Your task to perform on an android device: check google app version Image 0: 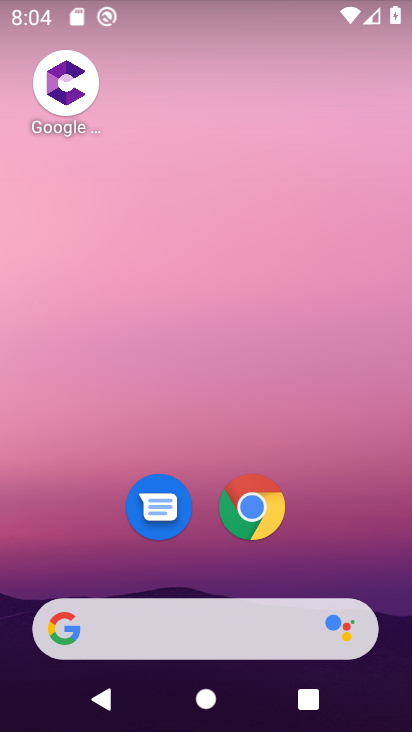
Step 0: drag from (204, 556) to (201, 161)
Your task to perform on an android device: check google app version Image 1: 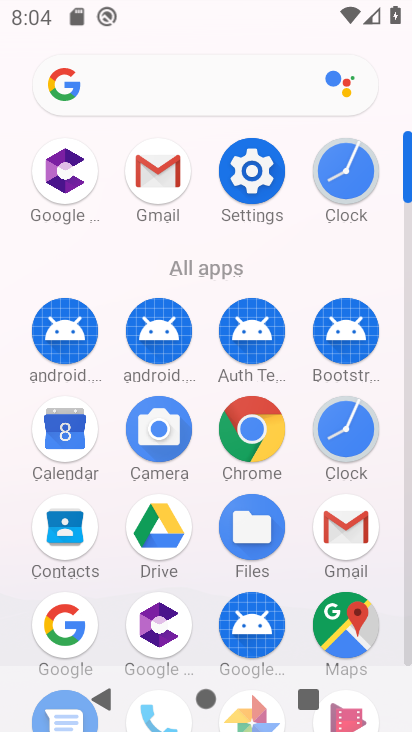
Step 1: click (52, 629)
Your task to perform on an android device: check google app version Image 2: 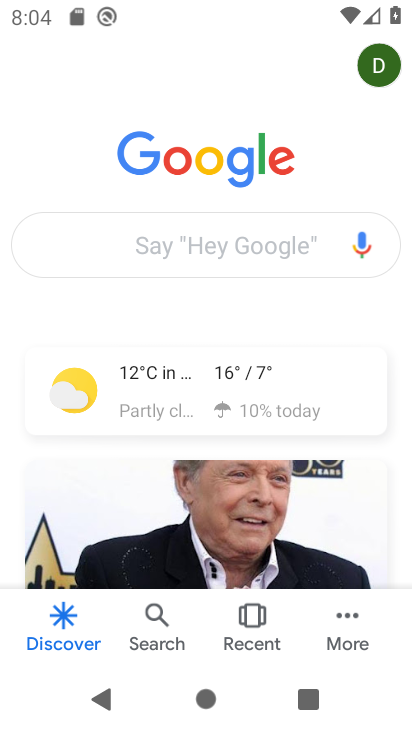
Step 2: click (352, 629)
Your task to perform on an android device: check google app version Image 3: 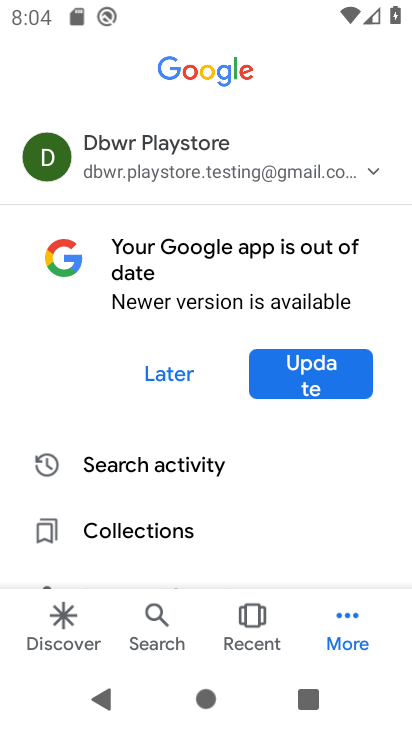
Step 3: drag from (201, 528) to (158, 204)
Your task to perform on an android device: check google app version Image 4: 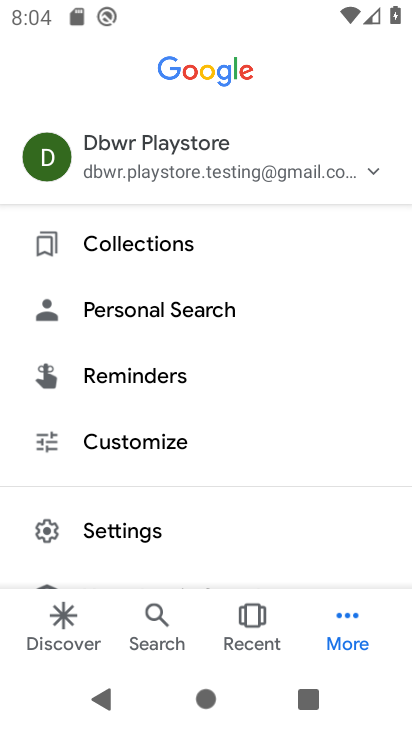
Step 4: drag from (171, 522) to (188, 311)
Your task to perform on an android device: check google app version Image 5: 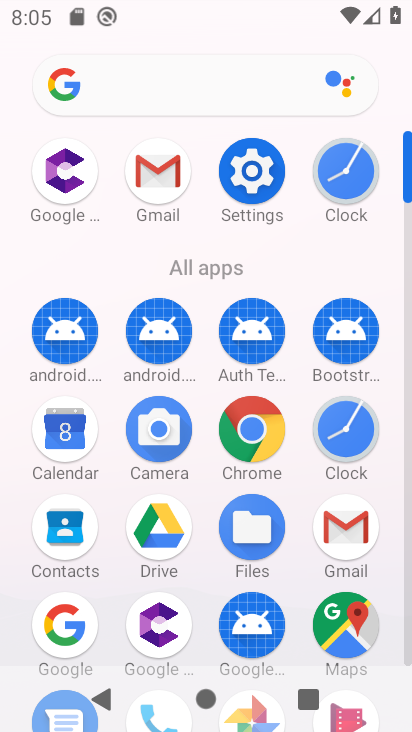
Step 5: click (74, 626)
Your task to perform on an android device: check google app version Image 6: 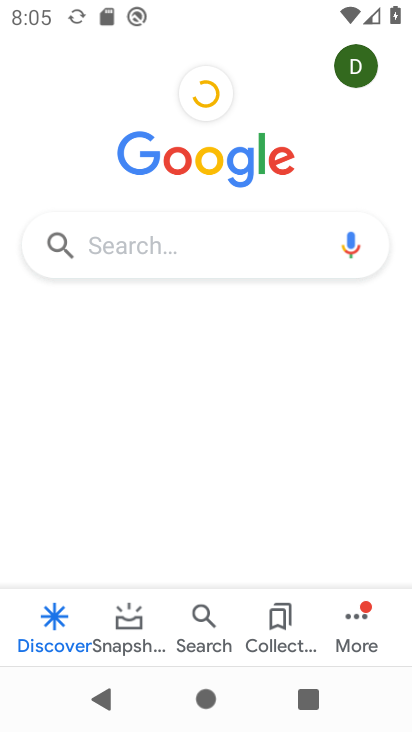
Step 6: click (362, 625)
Your task to perform on an android device: check google app version Image 7: 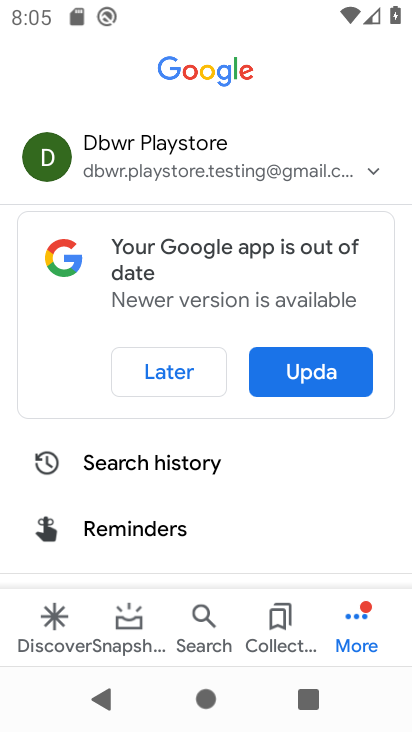
Step 7: click (351, 614)
Your task to perform on an android device: check google app version Image 8: 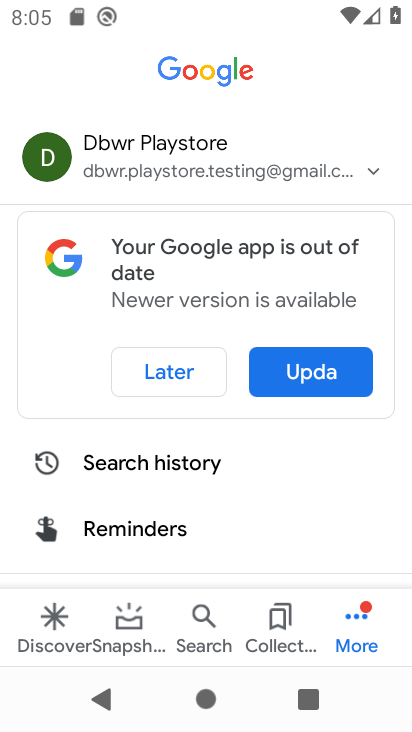
Step 8: drag from (219, 510) to (229, 174)
Your task to perform on an android device: check google app version Image 9: 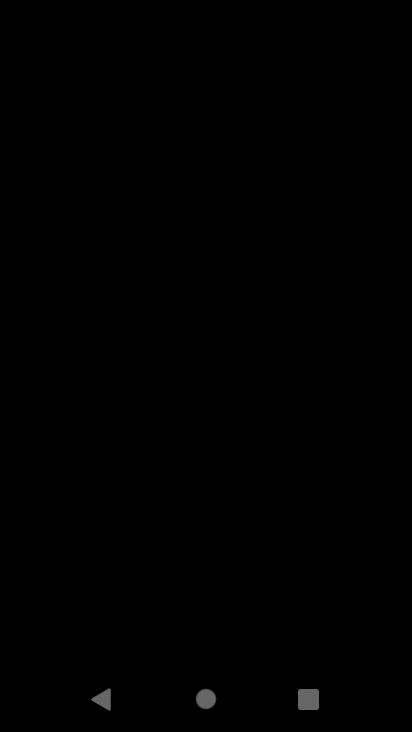
Step 9: drag from (198, 541) to (200, 292)
Your task to perform on an android device: check google app version Image 10: 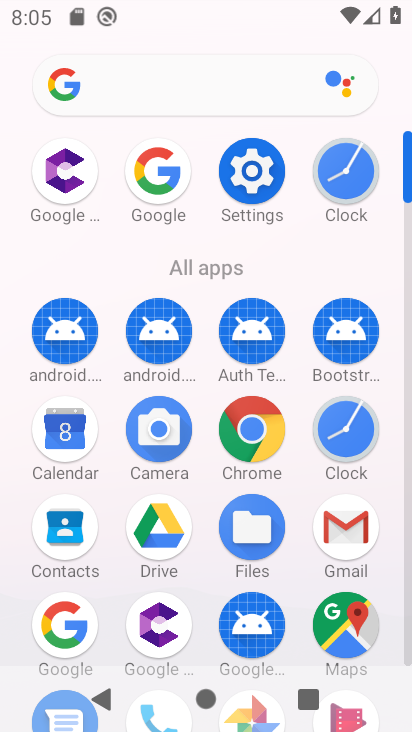
Step 10: drag from (168, 182) to (220, 182)
Your task to perform on an android device: check google app version Image 11: 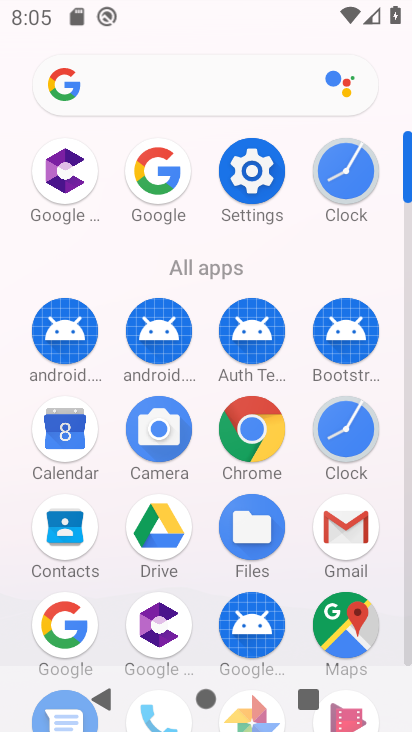
Step 11: click (143, 195)
Your task to perform on an android device: check google app version Image 12: 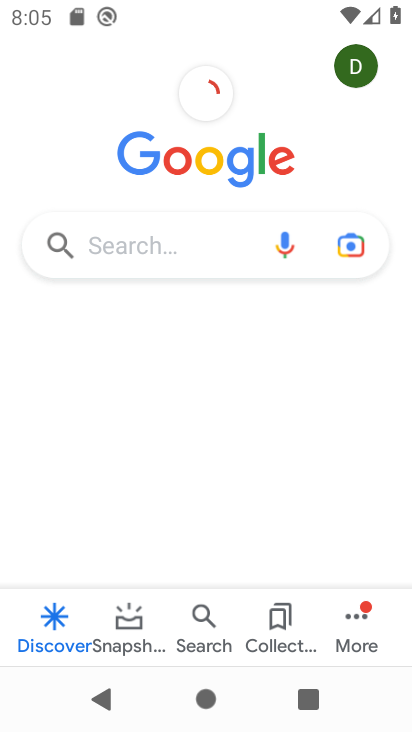
Step 12: click (351, 603)
Your task to perform on an android device: check google app version Image 13: 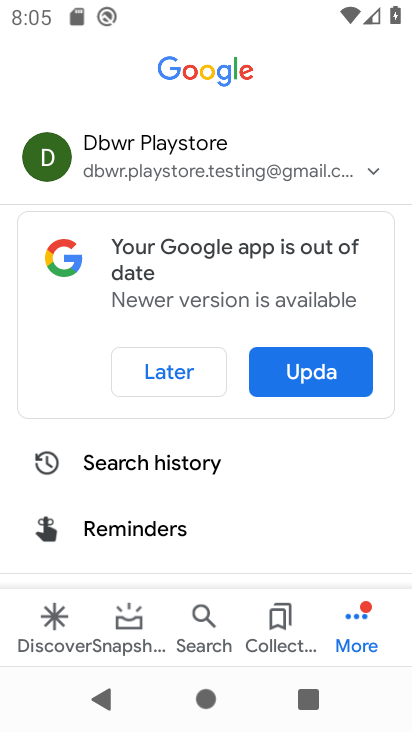
Step 13: drag from (215, 510) to (215, 154)
Your task to perform on an android device: check google app version Image 14: 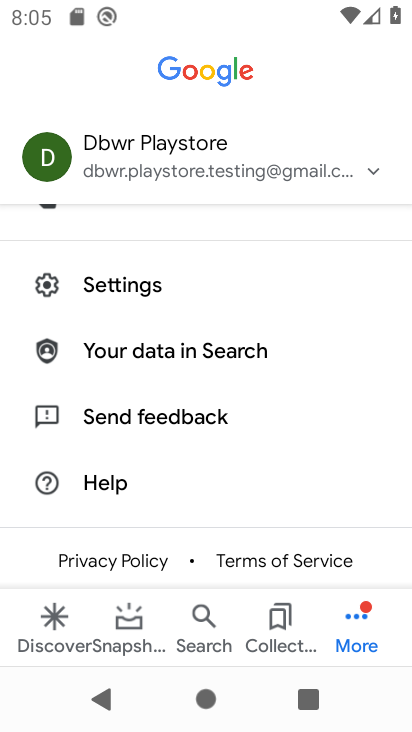
Step 14: click (151, 287)
Your task to perform on an android device: check google app version Image 15: 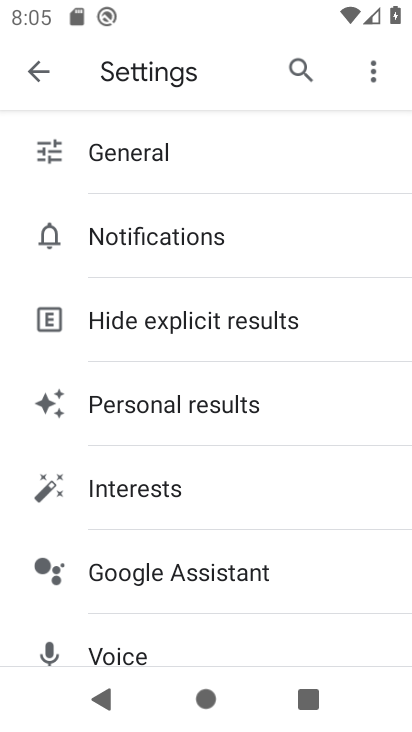
Step 15: drag from (166, 568) to (190, 256)
Your task to perform on an android device: check google app version Image 16: 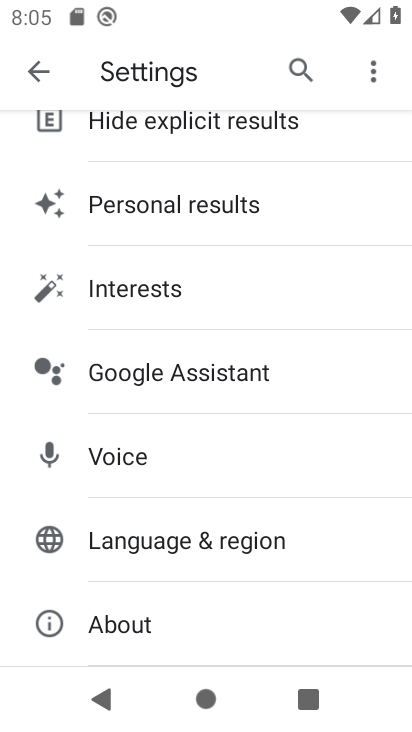
Step 16: click (131, 611)
Your task to perform on an android device: check google app version Image 17: 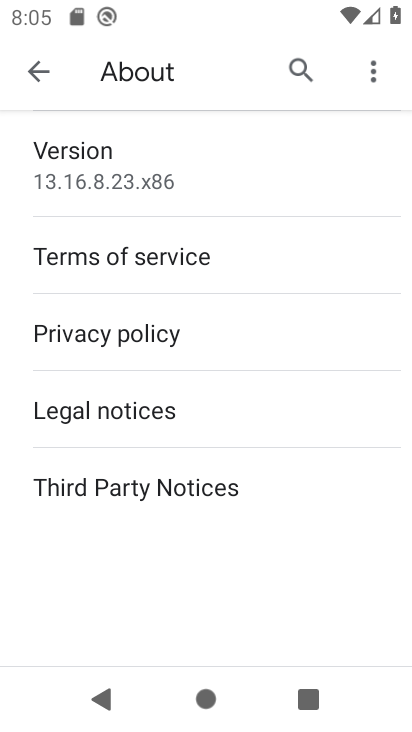
Step 17: click (166, 179)
Your task to perform on an android device: check google app version Image 18: 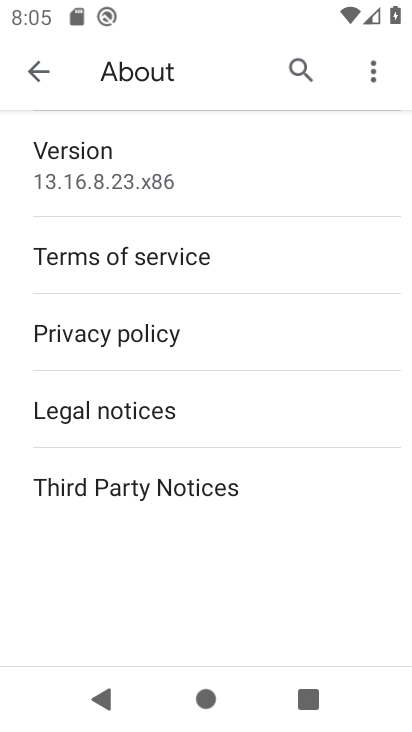
Step 18: click (182, 172)
Your task to perform on an android device: check google app version Image 19: 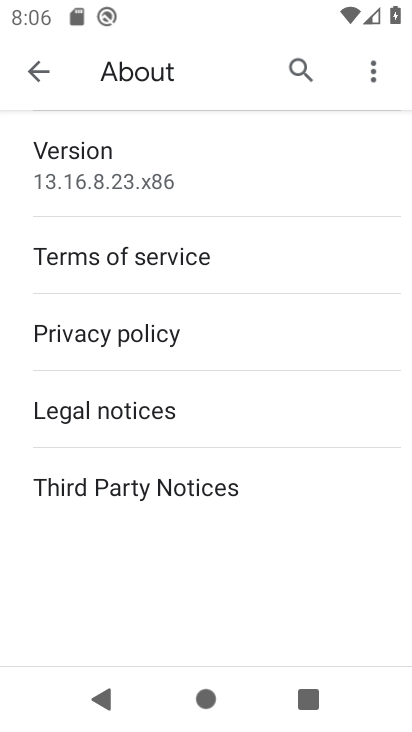
Step 19: click (87, 170)
Your task to perform on an android device: check google app version Image 20: 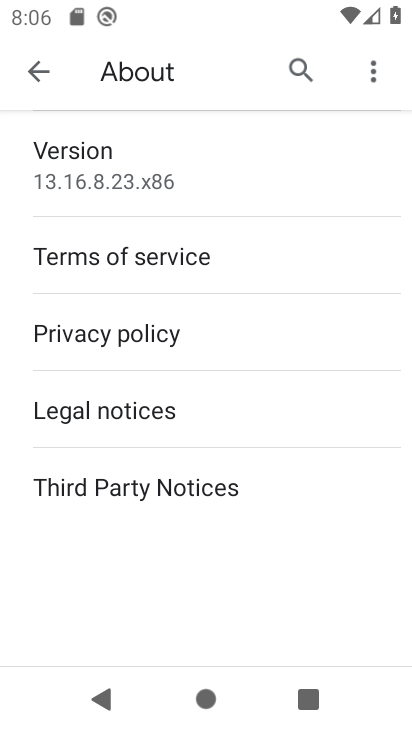
Step 20: task complete